Your task to perform on an android device: open a new tab in the chrome app Image 0: 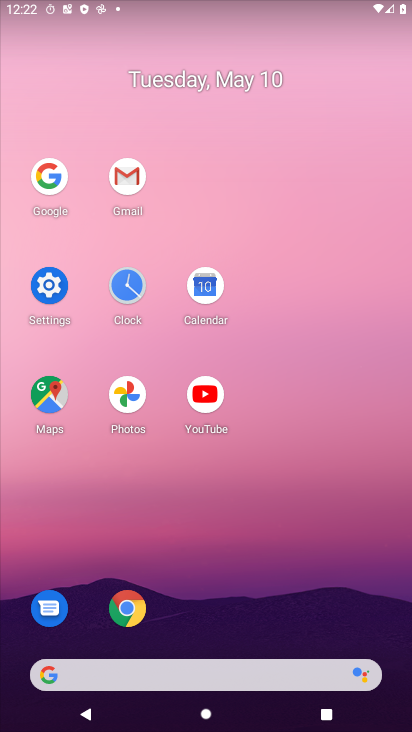
Step 0: click (122, 600)
Your task to perform on an android device: open a new tab in the chrome app Image 1: 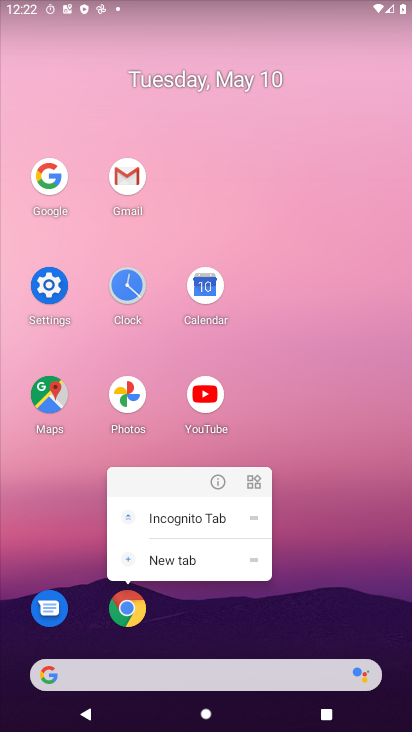
Step 1: click (135, 612)
Your task to perform on an android device: open a new tab in the chrome app Image 2: 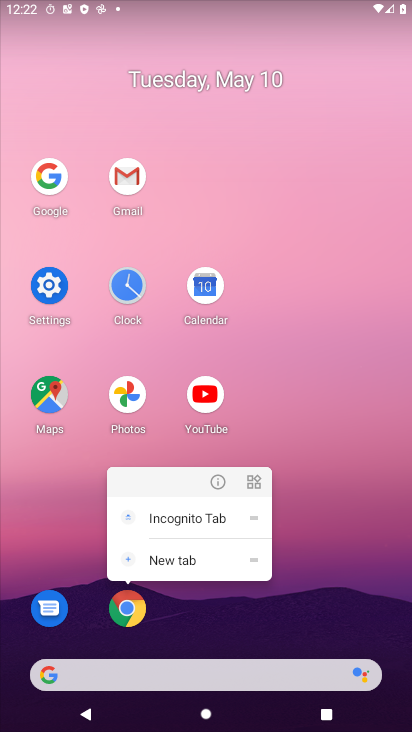
Step 2: click (135, 612)
Your task to perform on an android device: open a new tab in the chrome app Image 3: 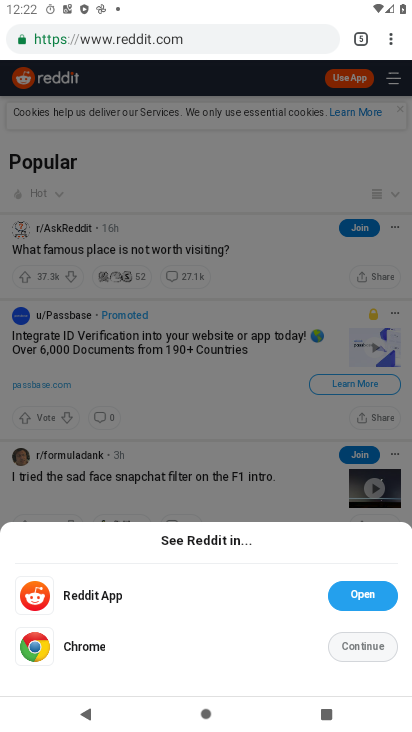
Step 3: click (361, 40)
Your task to perform on an android device: open a new tab in the chrome app Image 4: 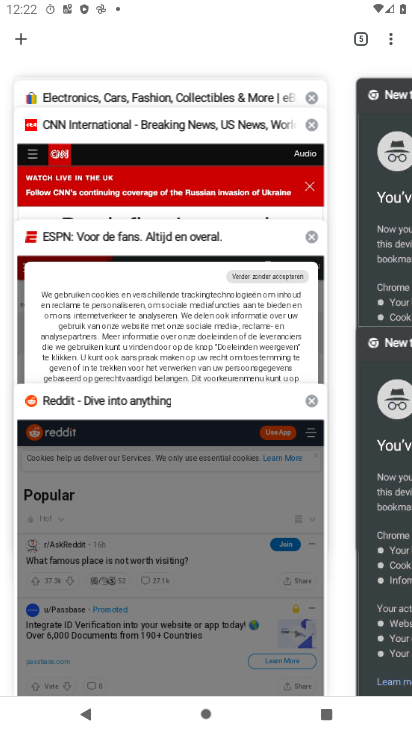
Step 4: click (28, 46)
Your task to perform on an android device: open a new tab in the chrome app Image 5: 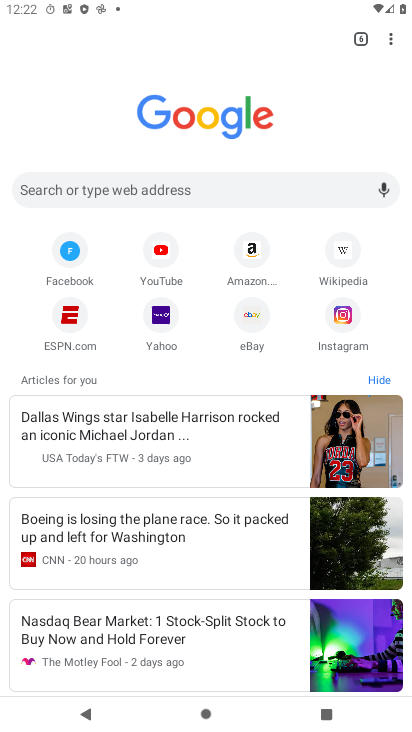
Step 5: task complete